Your task to perform on an android device: search for starred emails in the gmail app Image 0: 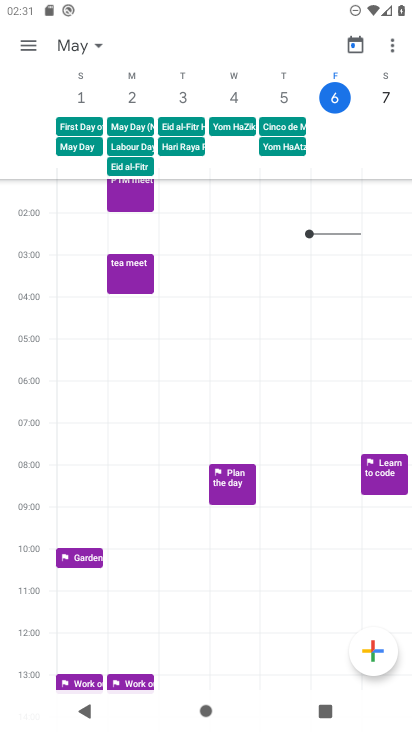
Step 0: press home button
Your task to perform on an android device: search for starred emails in the gmail app Image 1: 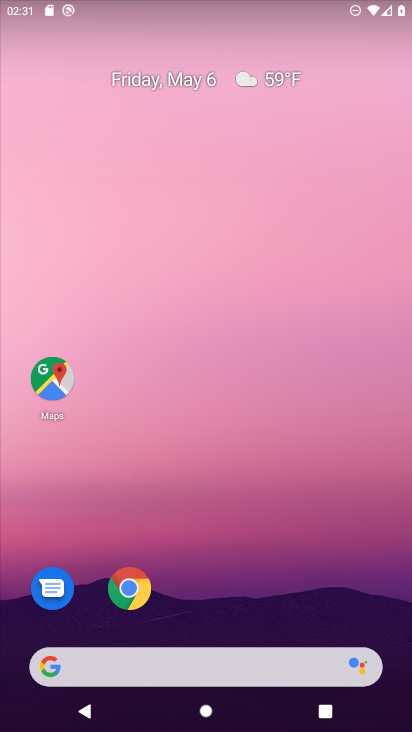
Step 1: drag from (248, 615) to (201, 47)
Your task to perform on an android device: search for starred emails in the gmail app Image 2: 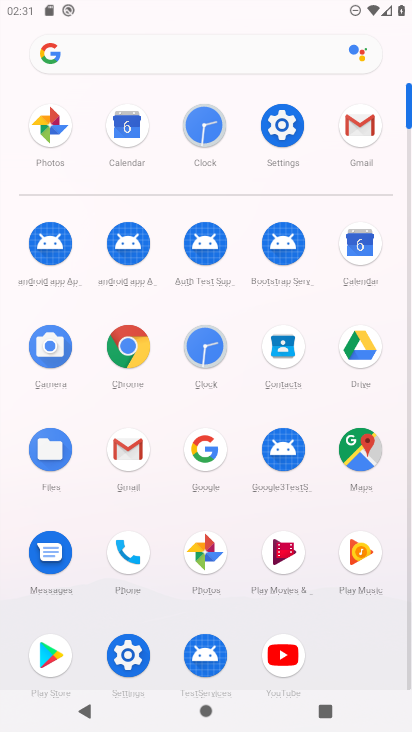
Step 2: click (118, 449)
Your task to perform on an android device: search for starred emails in the gmail app Image 3: 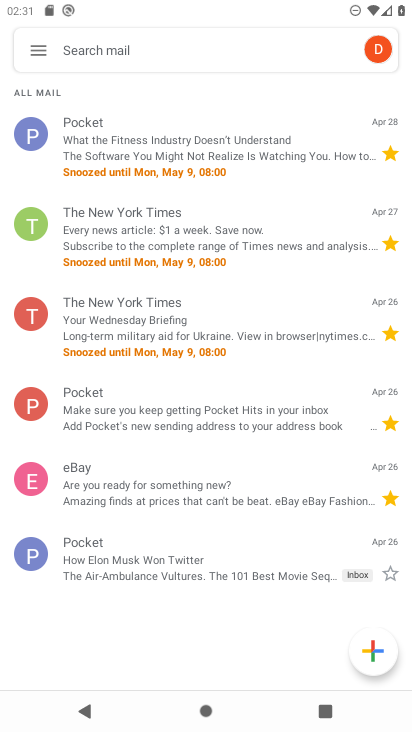
Step 3: click (36, 60)
Your task to perform on an android device: search for starred emails in the gmail app Image 4: 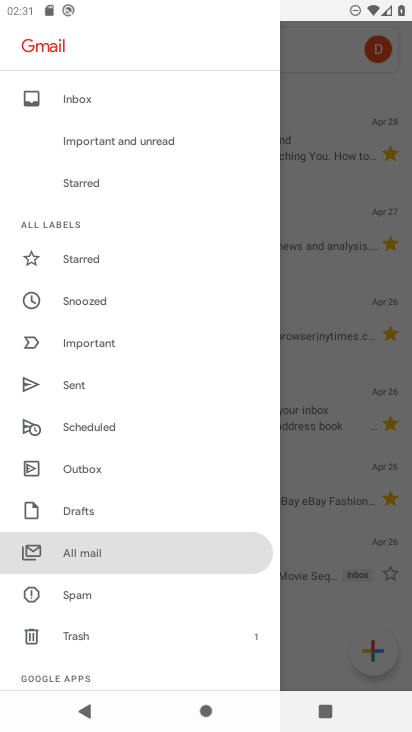
Step 4: click (85, 247)
Your task to perform on an android device: search for starred emails in the gmail app Image 5: 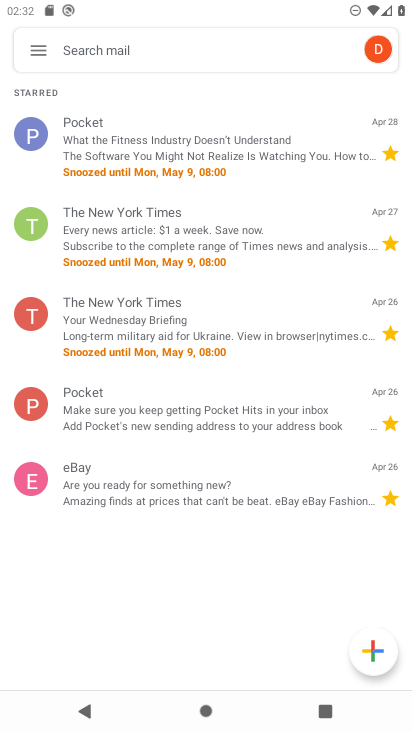
Step 5: task complete